Your task to perform on an android device: turn notification dots on Image 0: 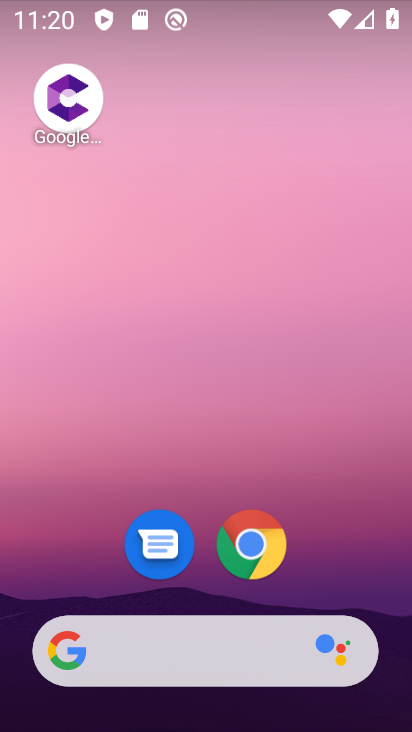
Step 0: drag from (318, 578) to (242, 163)
Your task to perform on an android device: turn notification dots on Image 1: 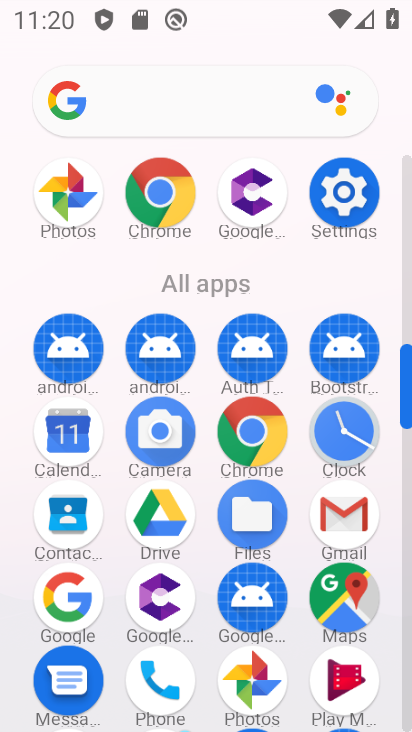
Step 1: click (338, 196)
Your task to perform on an android device: turn notification dots on Image 2: 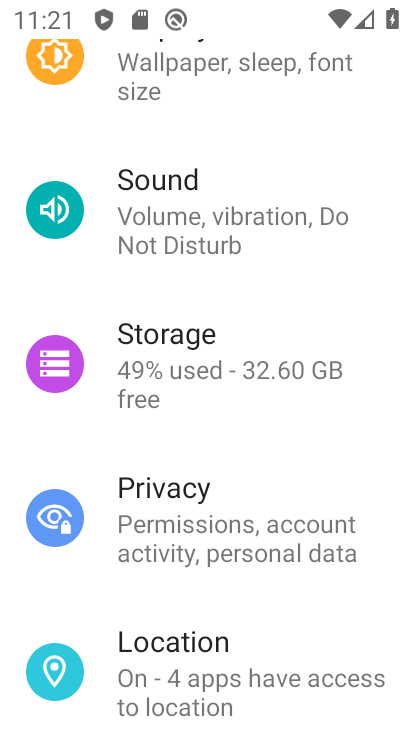
Step 2: drag from (238, 158) to (249, 602)
Your task to perform on an android device: turn notification dots on Image 3: 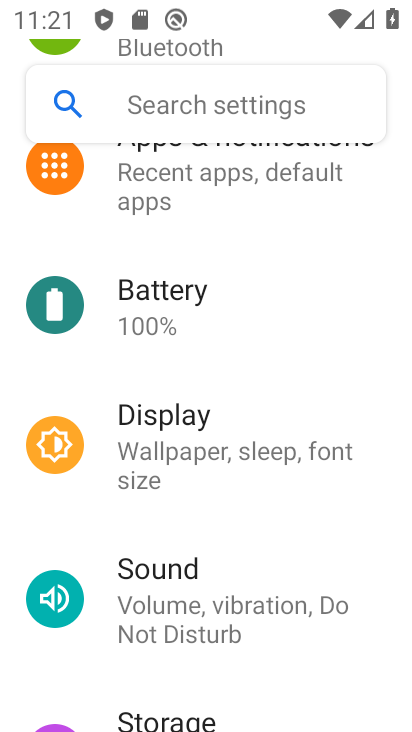
Step 3: drag from (245, 289) to (254, 679)
Your task to perform on an android device: turn notification dots on Image 4: 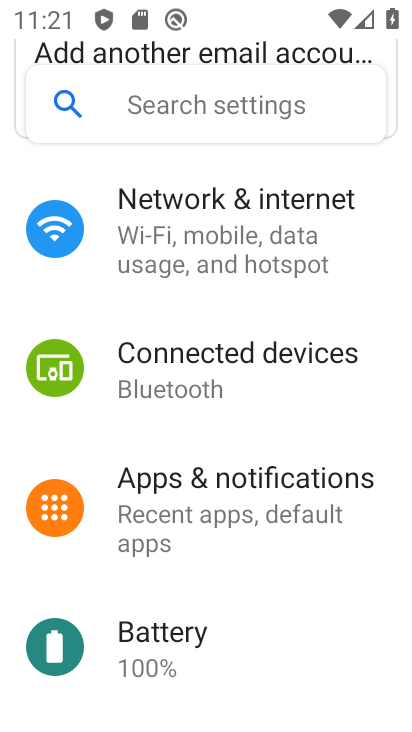
Step 4: drag from (326, 323) to (320, 677)
Your task to perform on an android device: turn notification dots on Image 5: 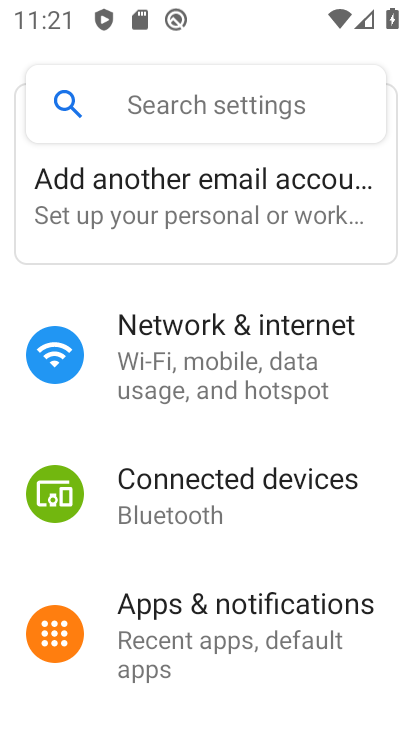
Step 5: click (201, 620)
Your task to perform on an android device: turn notification dots on Image 6: 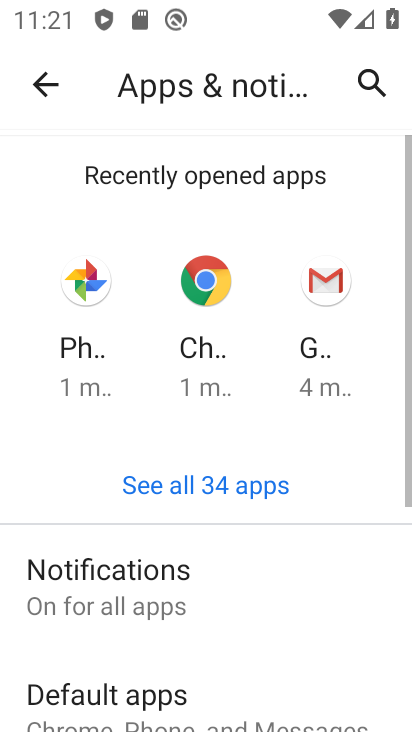
Step 6: drag from (189, 709) to (177, 330)
Your task to perform on an android device: turn notification dots on Image 7: 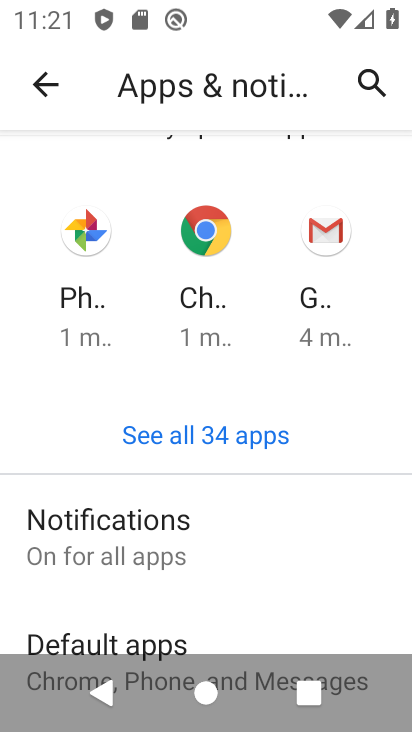
Step 7: drag from (206, 609) to (210, 351)
Your task to perform on an android device: turn notification dots on Image 8: 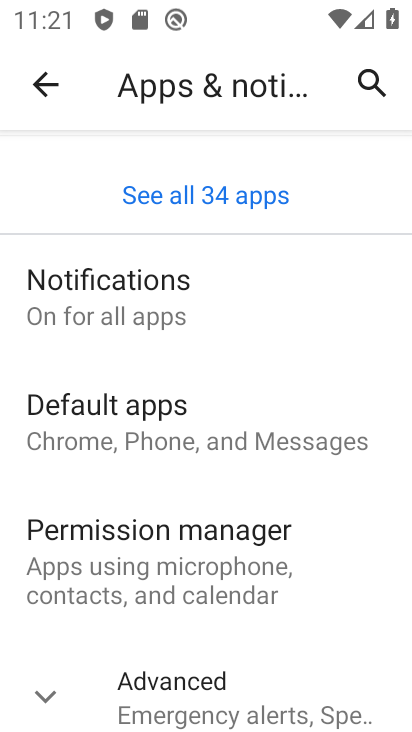
Step 8: drag from (167, 598) to (160, 309)
Your task to perform on an android device: turn notification dots on Image 9: 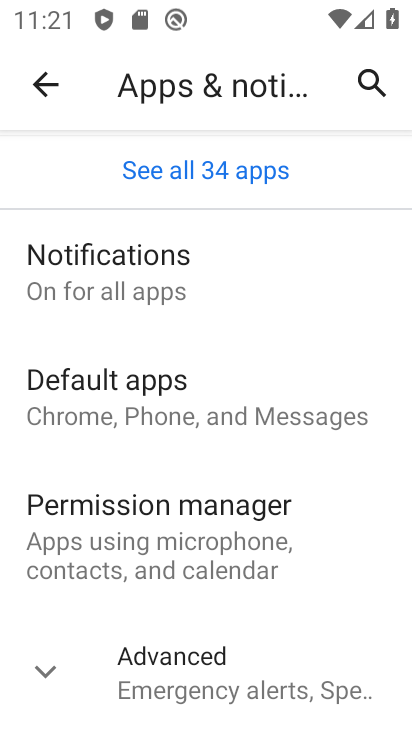
Step 9: click (128, 276)
Your task to perform on an android device: turn notification dots on Image 10: 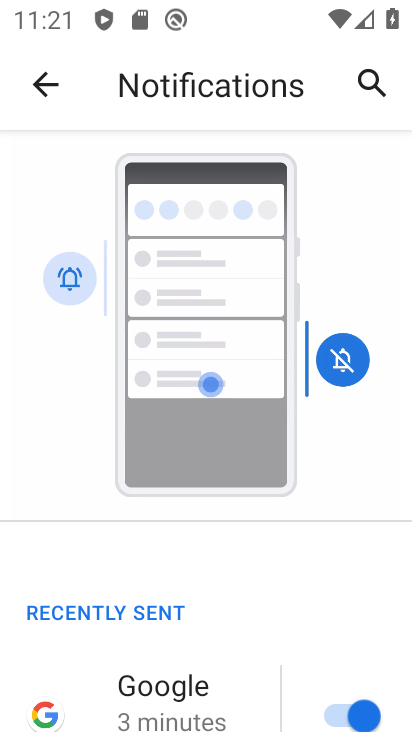
Step 10: drag from (224, 610) to (231, 389)
Your task to perform on an android device: turn notification dots on Image 11: 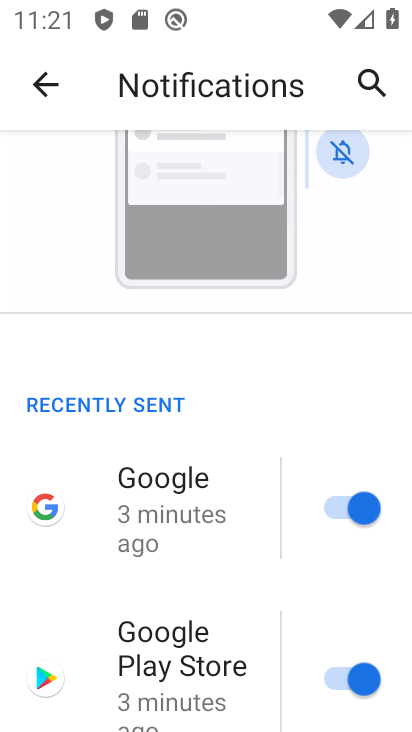
Step 11: drag from (215, 634) to (210, 247)
Your task to perform on an android device: turn notification dots on Image 12: 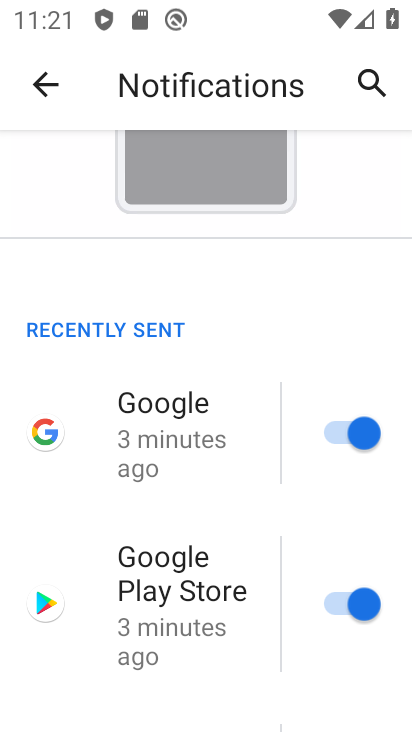
Step 12: click (200, 203)
Your task to perform on an android device: turn notification dots on Image 13: 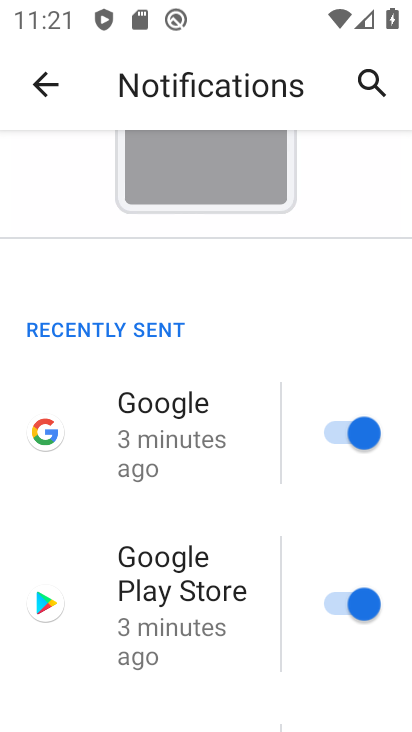
Step 13: click (219, 270)
Your task to perform on an android device: turn notification dots on Image 14: 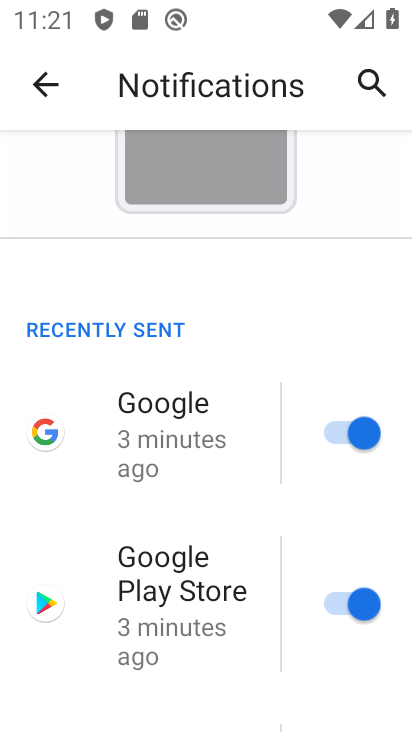
Step 14: drag from (192, 608) to (200, 153)
Your task to perform on an android device: turn notification dots on Image 15: 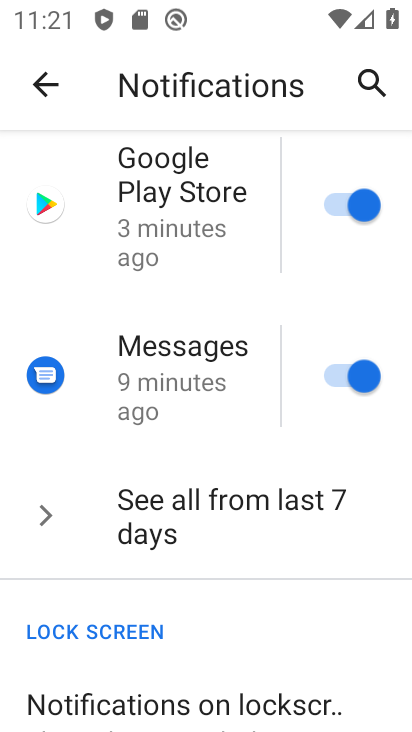
Step 15: drag from (237, 697) to (184, 355)
Your task to perform on an android device: turn notification dots on Image 16: 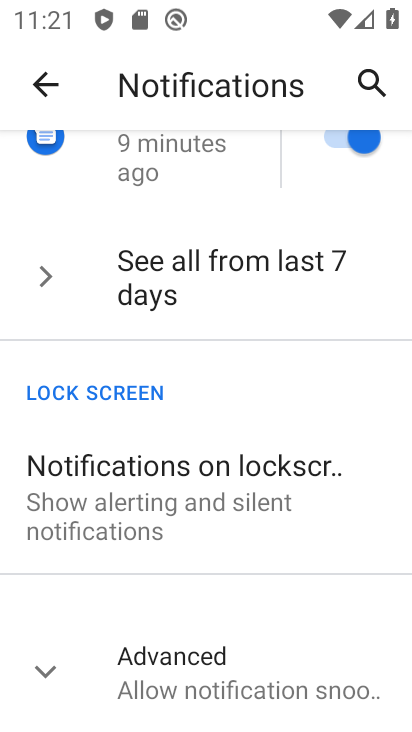
Step 16: click (181, 657)
Your task to perform on an android device: turn notification dots on Image 17: 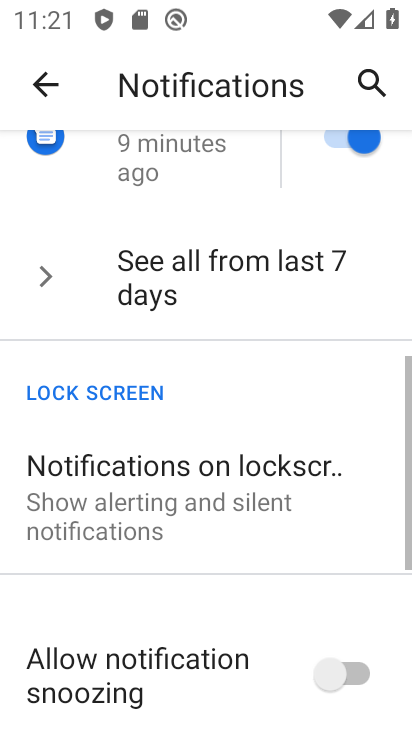
Step 17: task complete